Your task to perform on an android device: set the timer Image 0: 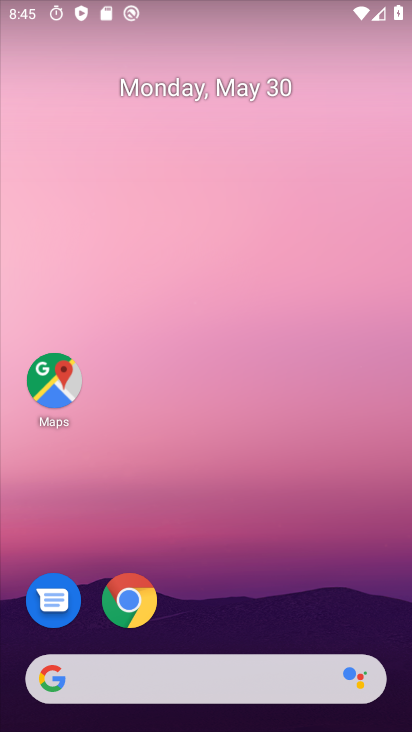
Step 0: drag from (267, 574) to (159, 41)
Your task to perform on an android device: set the timer Image 1: 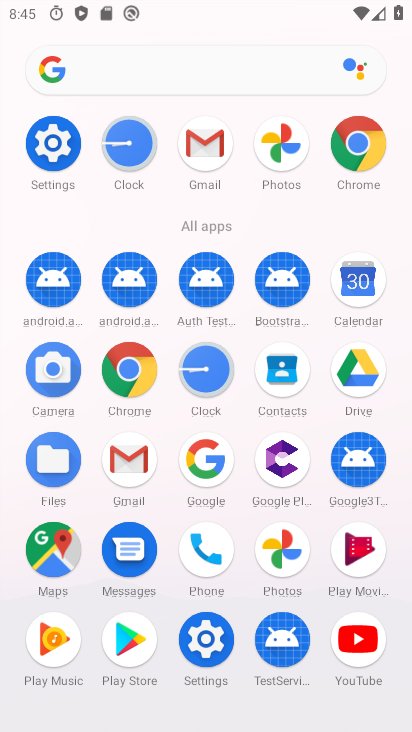
Step 1: click (204, 370)
Your task to perform on an android device: set the timer Image 2: 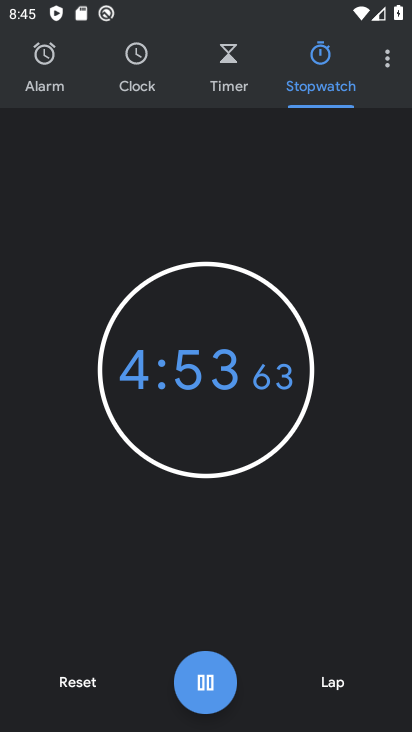
Step 2: click (232, 52)
Your task to perform on an android device: set the timer Image 3: 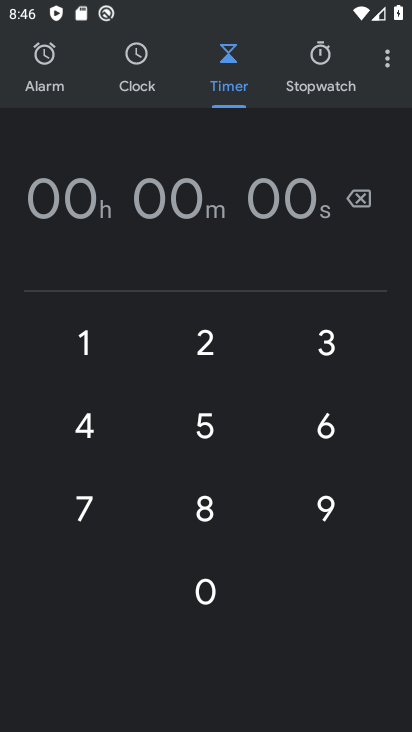
Step 3: click (211, 336)
Your task to perform on an android device: set the timer Image 4: 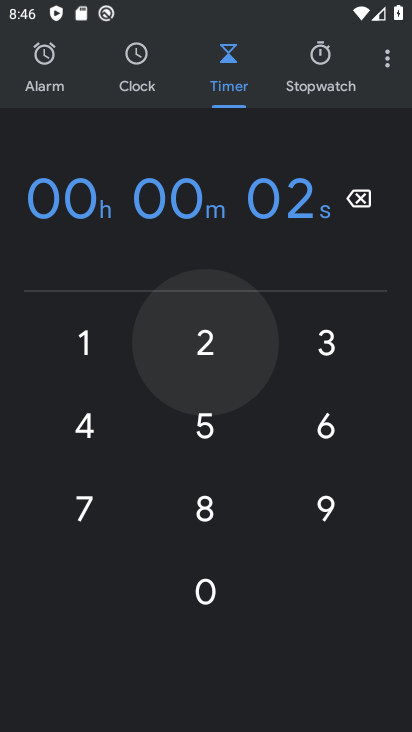
Step 4: drag from (207, 434) to (210, 496)
Your task to perform on an android device: set the timer Image 5: 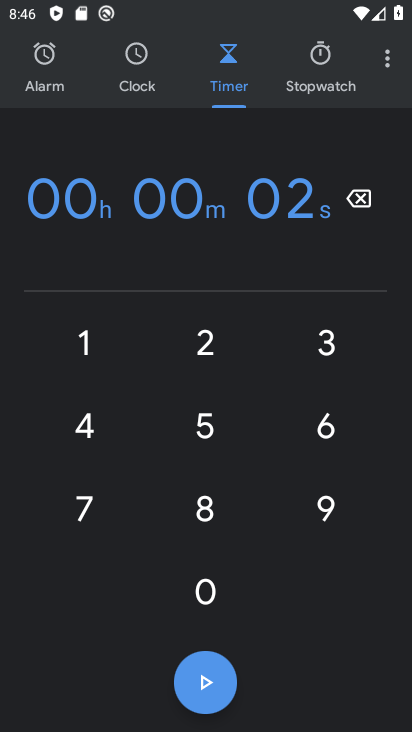
Step 5: click (209, 502)
Your task to perform on an android device: set the timer Image 6: 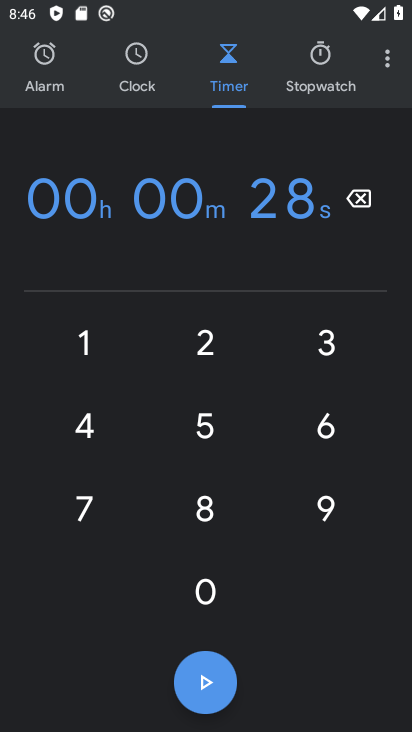
Step 6: click (207, 596)
Your task to perform on an android device: set the timer Image 7: 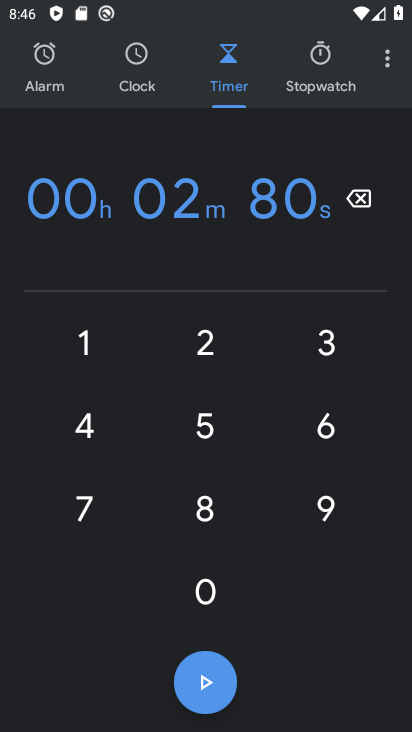
Step 7: click (207, 670)
Your task to perform on an android device: set the timer Image 8: 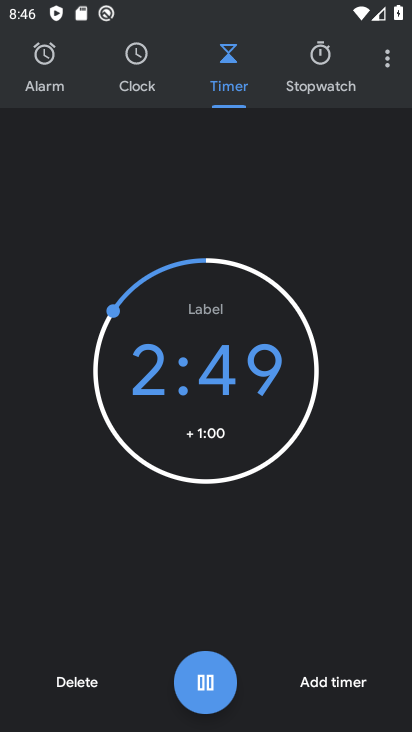
Step 8: task complete